Your task to perform on an android device: create a new album in the google photos Image 0: 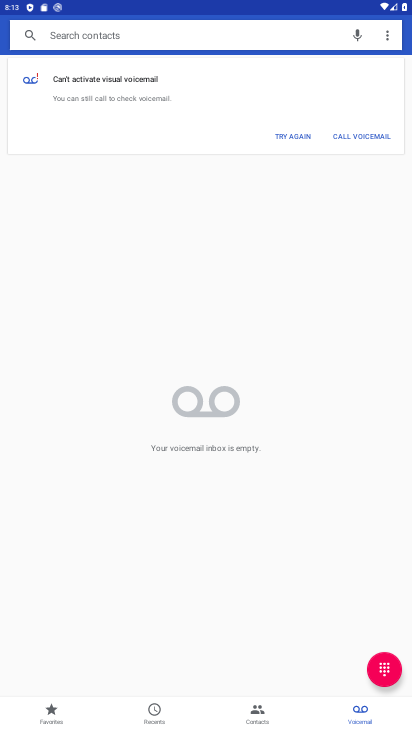
Step 0: press home button
Your task to perform on an android device: create a new album in the google photos Image 1: 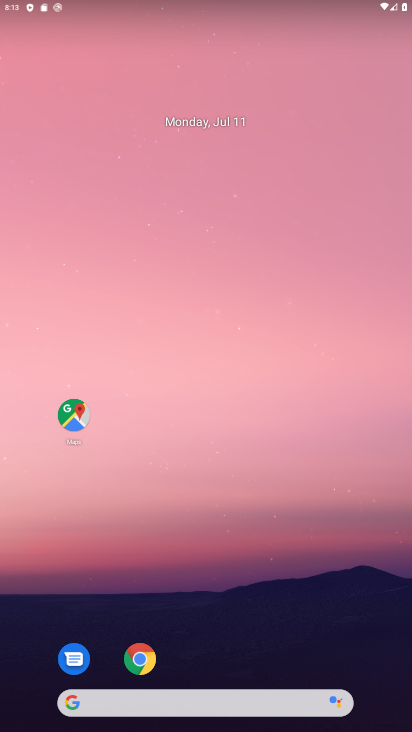
Step 1: drag from (34, 695) to (232, 21)
Your task to perform on an android device: create a new album in the google photos Image 2: 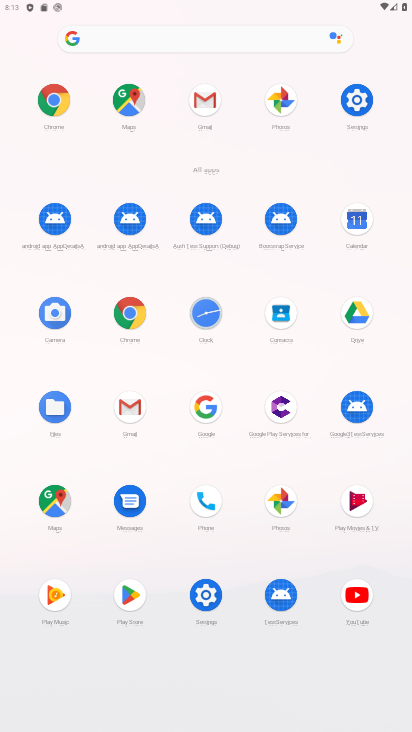
Step 2: click (283, 505)
Your task to perform on an android device: create a new album in the google photos Image 3: 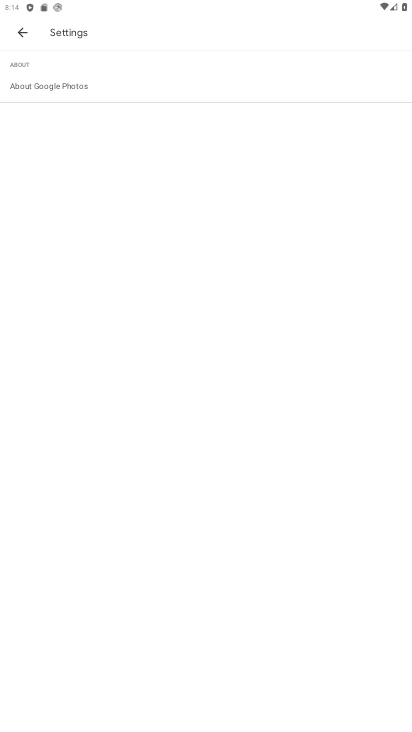
Step 3: click (21, 39)
Your task to perform on an android device: create a new album in the google photos Image 4: 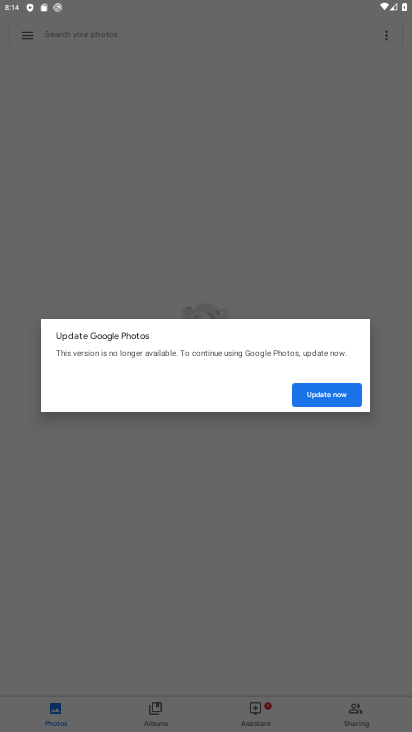
Step 4: click (335, 399)
Your task to perform on an android device: create a new album in the google photos Image 5: 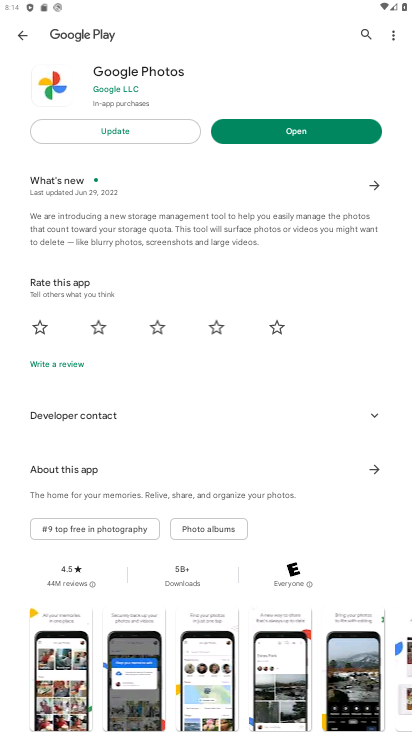
Step 5: click (288, 118)
Your task to perform on an android device: create a new album in the google photos Image 6: 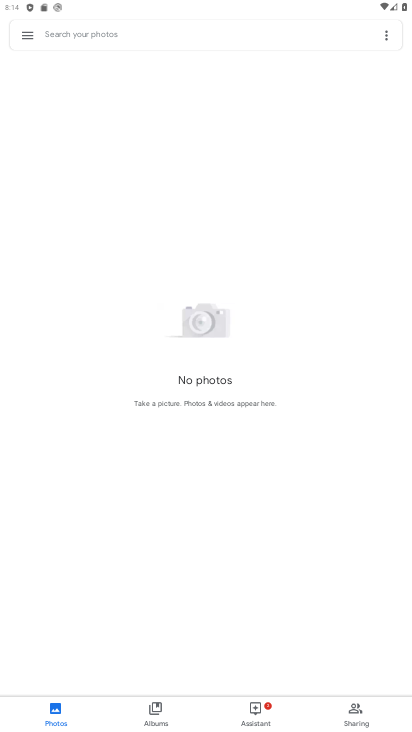
Step 6: click (380, 31)
Your task to perform on an android device: create a new album in the google photos Image 7: 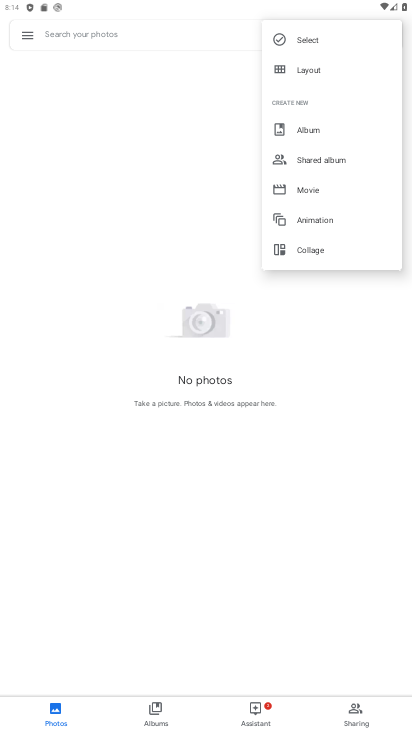
Step 7: click (311, 127)
Your task to perform on an android device: create a new album in the google photos Image 8: 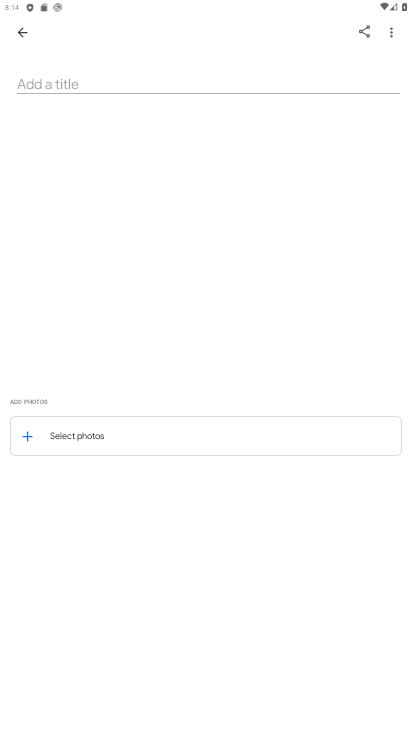
Step 8: click (39, 431)
Your task to perform on an android device: create a new album in the google photos Image 9: 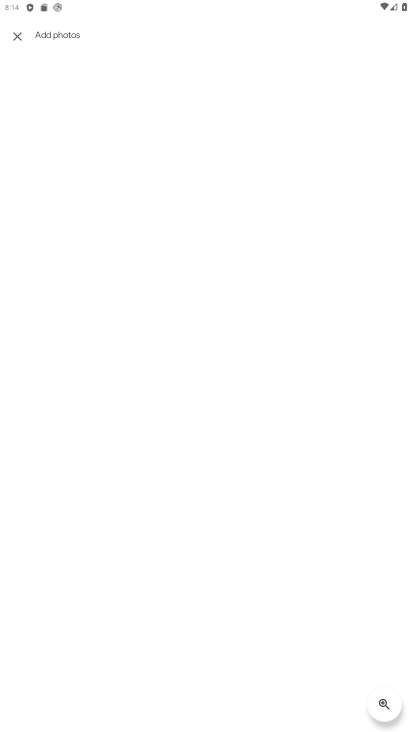
Step 9: task complete